Your task to perform on an android device: Go to Amazon Image 0: 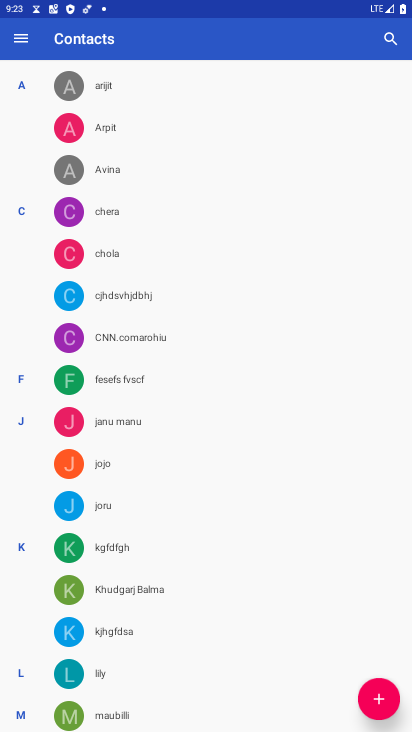
Step 0: press home button
Your task to perform on an android device: Go to Amazon Image 1: 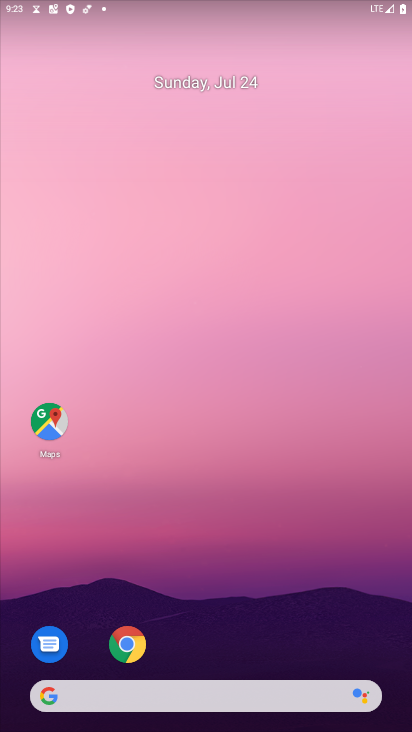
Step 1: click (130, 647)
Your task to perform on an android device: Go to Amazon Image 2: 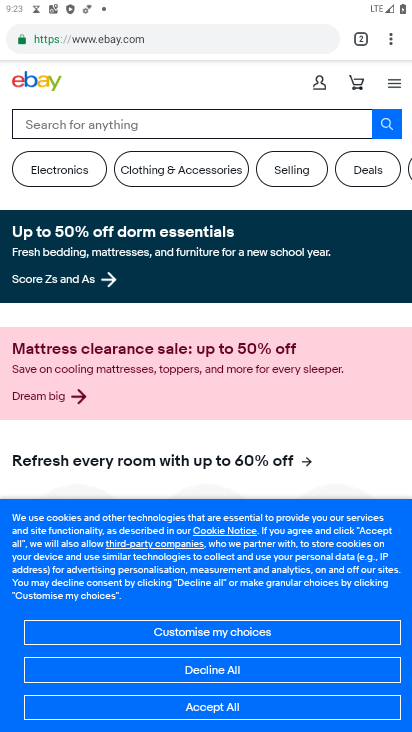
Step 2: click (86, 40)
Your task to perform on an android device: Go to Amazon Image 3: 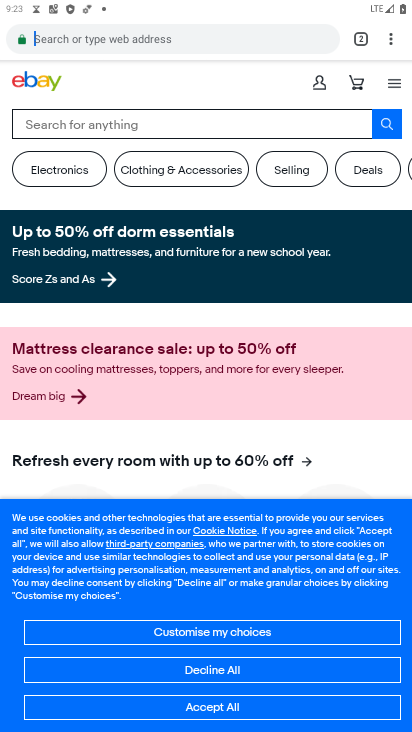
Step 3: click (86, 40)
Your task to perform on an android device: Go to Amazon Image 4: 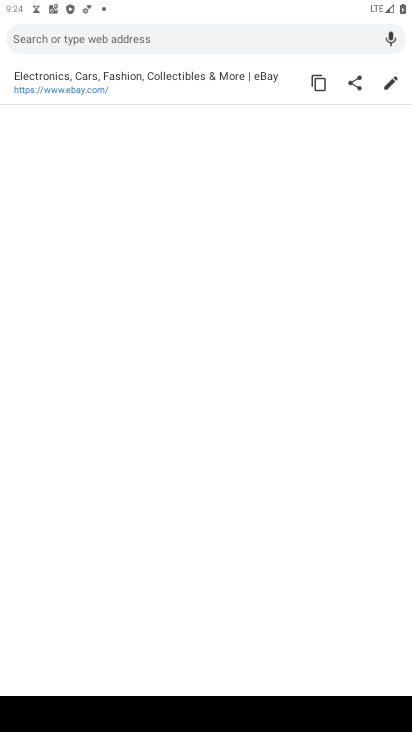
Step 4: type "Amazon"
Your task to perform on an android device: Go to Amazon Image 5: 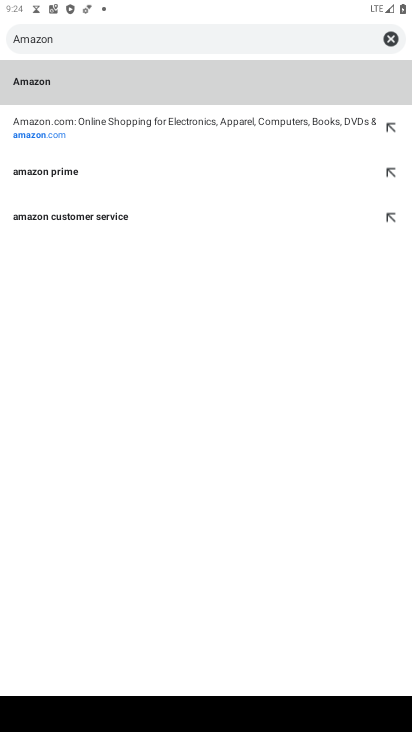
Step 5: click (34, 131)
Your task to perform on an android device: Go to Amazon Image 6: 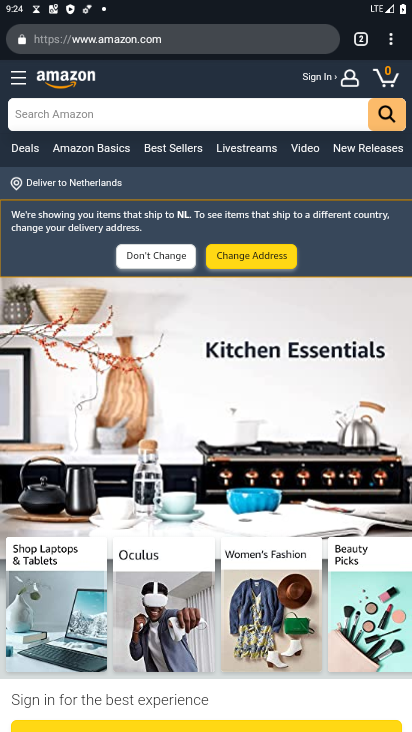
Step 6: task complete